Your task to perform on an android device: Clear the shopping cart on ebay.com. Search for "razer thresher" on ebay.com, select the first entry, and add it to the cart. Image 0: 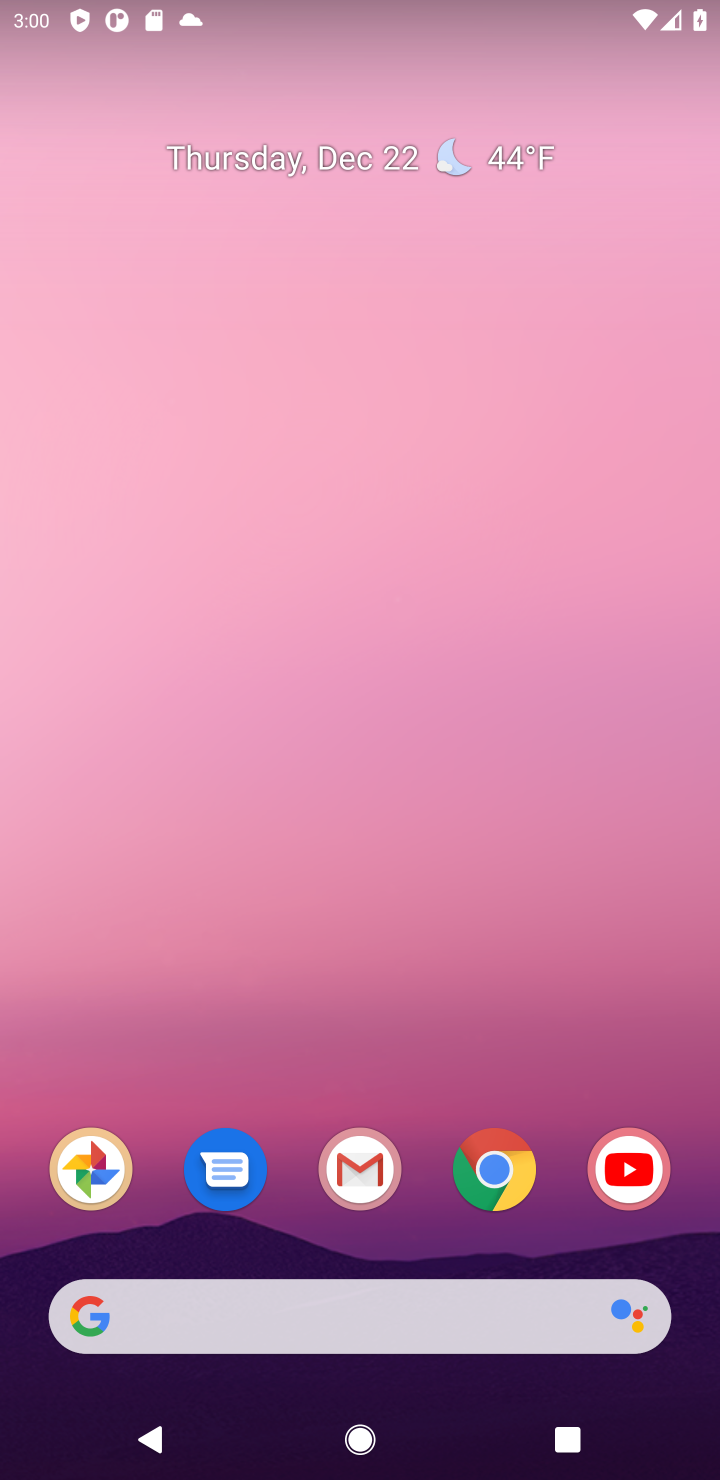
Step 0: click (508, 1170)
Your task to perform on an android device: Clear the shopping cart on ebay.com. Search for "razer thresher" on ebay.com, select the first entry, and add it to the cart. Image 1: 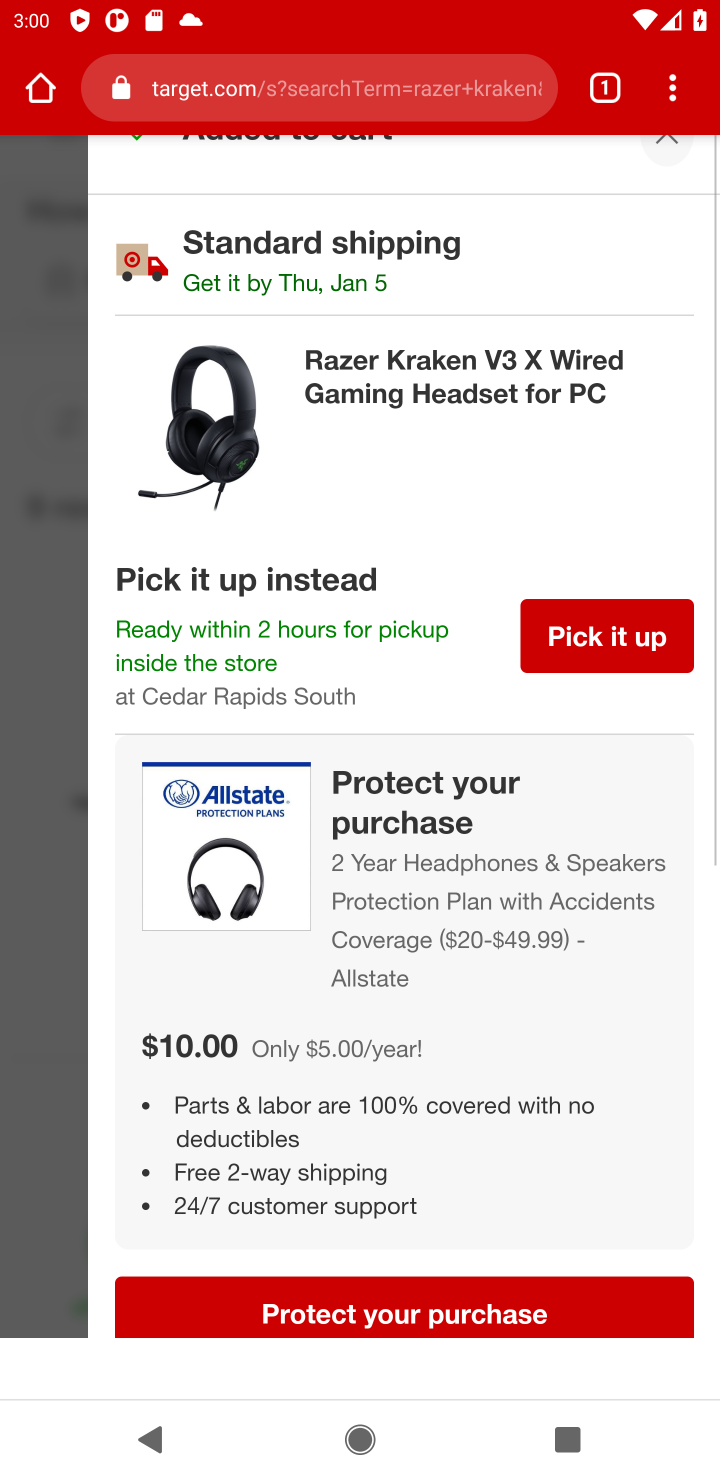
Step 1: click (246, 96)
Your task to perform on an android device: Clear the shopping cart on ebay.com. Search for "razer thresher" on ebay.com, select the first entry, and add it to the cart. Image 2: 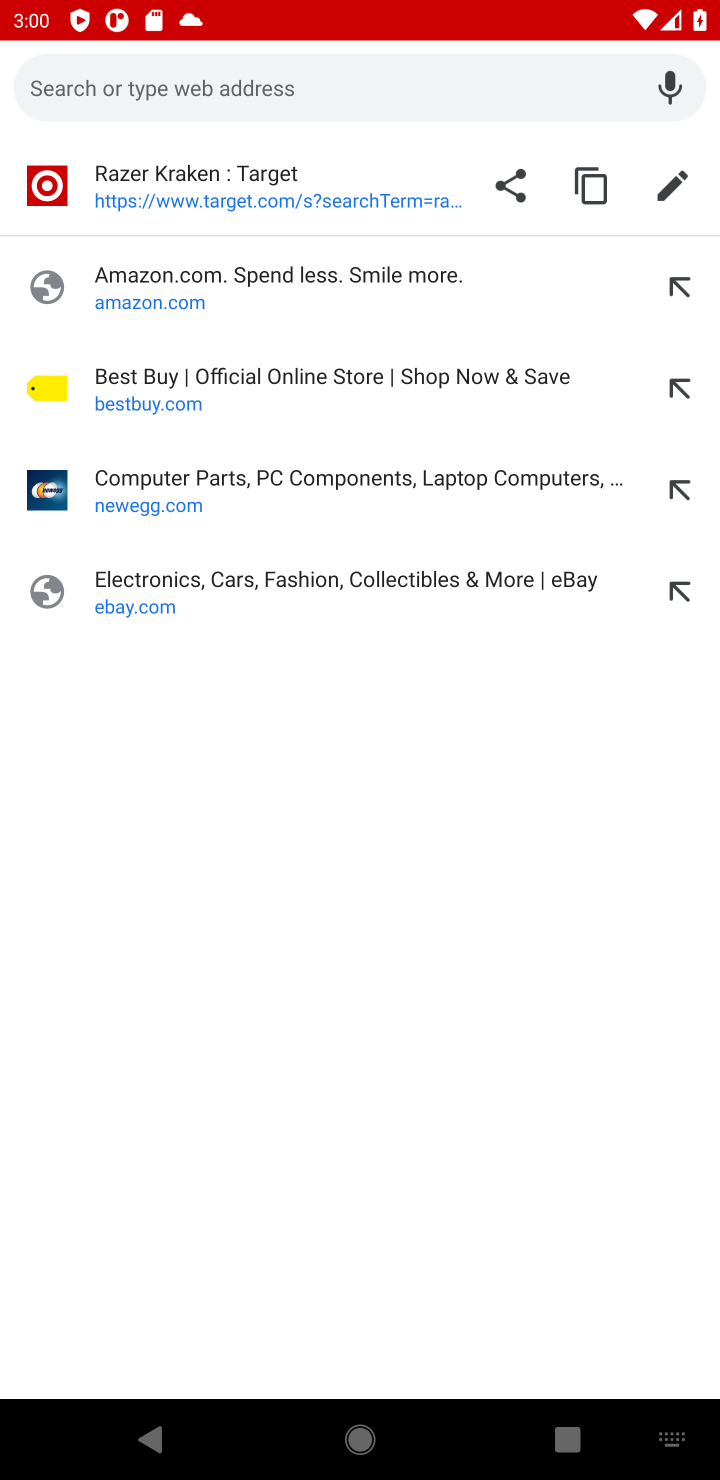
Step 2: click (127, 603)
Your task to perform on an android device: Clear the shopping cart on ebay.com. Search for "razer thresher" on ebay.com, select the first entry, and add it to the cart. Image 3: 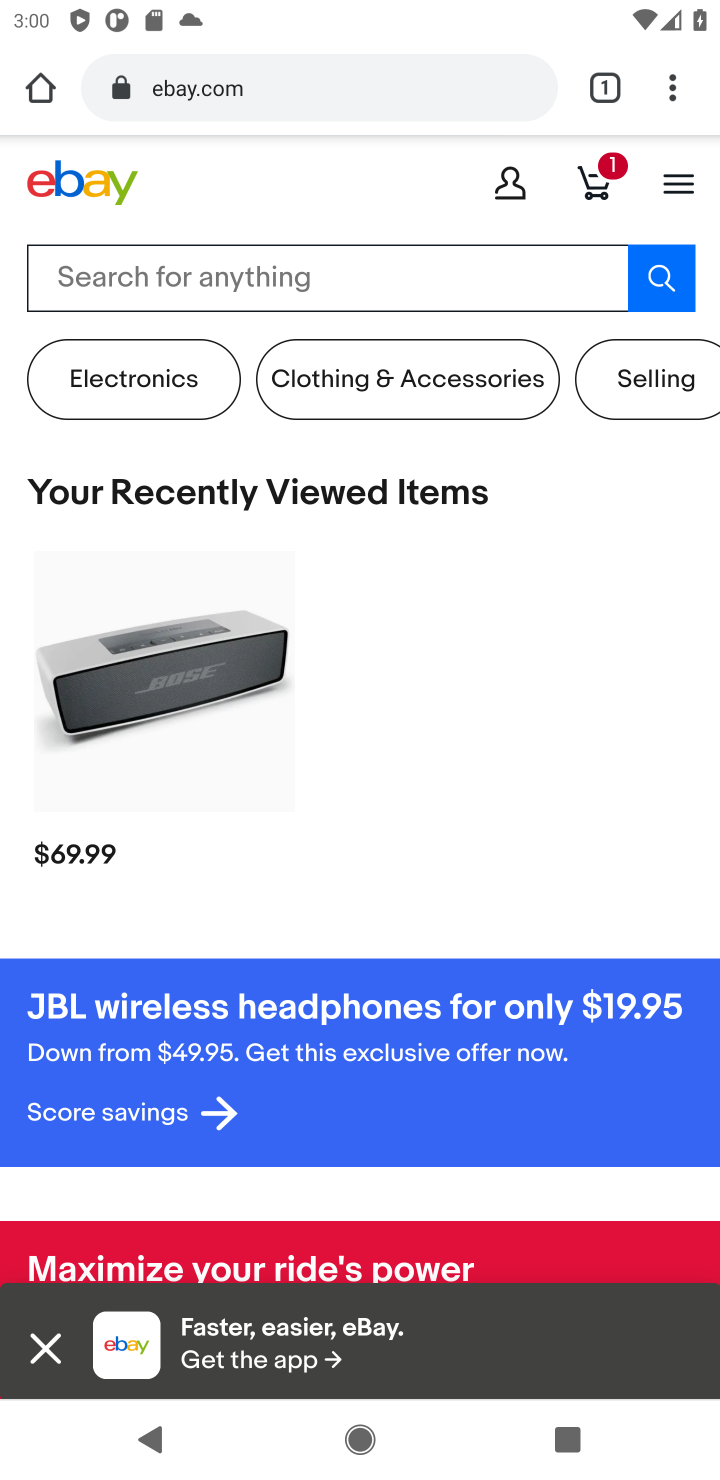
Step 3: click (605, 191)
Your task to perform on an android device: Clear the shopping cart on ebay.com. Search for "razer thresher" on ebay.com, select the first entry, and add it to the cart. Image 4: 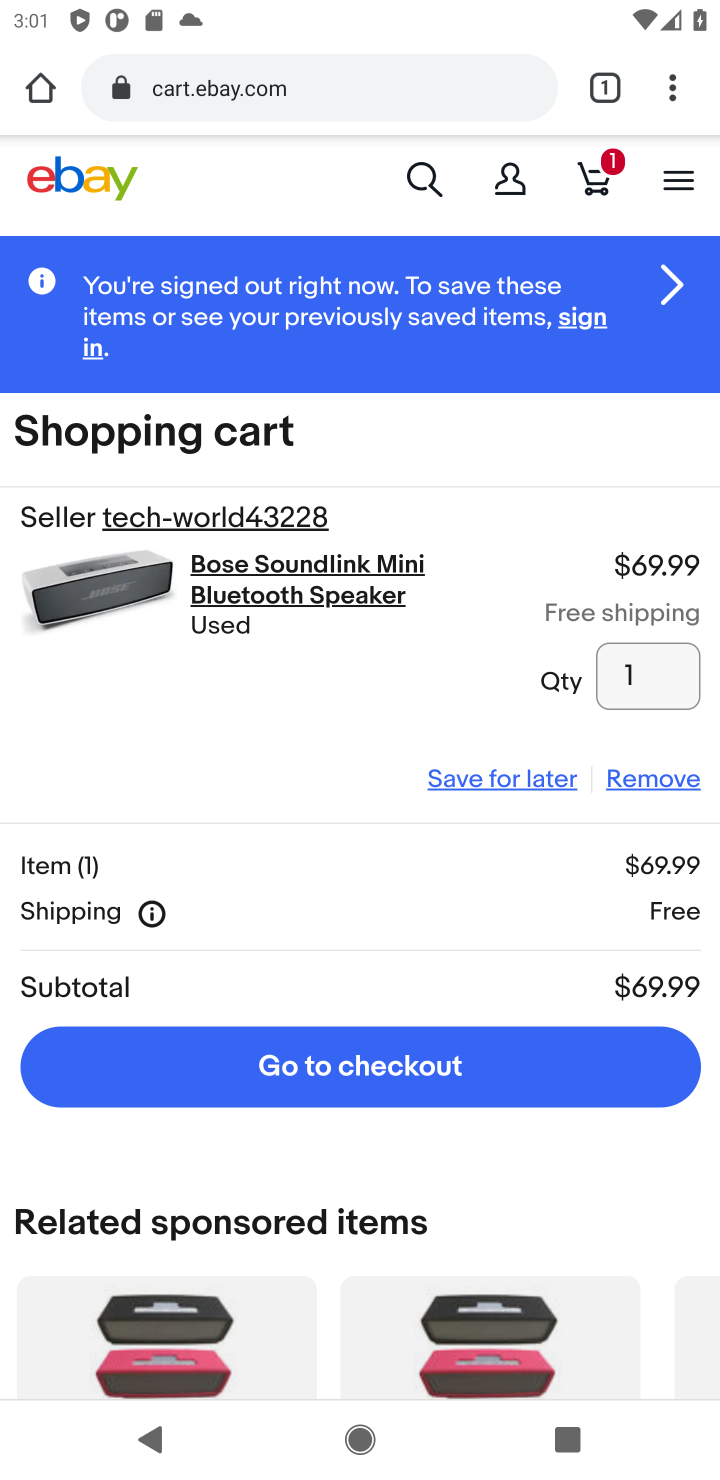
Step 4: click (632, 783)
Your task to perform on an android device: Clear the shopping cart on ebay.com. Search for "razer thresher" on ebay.com, select the first entry, and add it to the cart. Image 5: 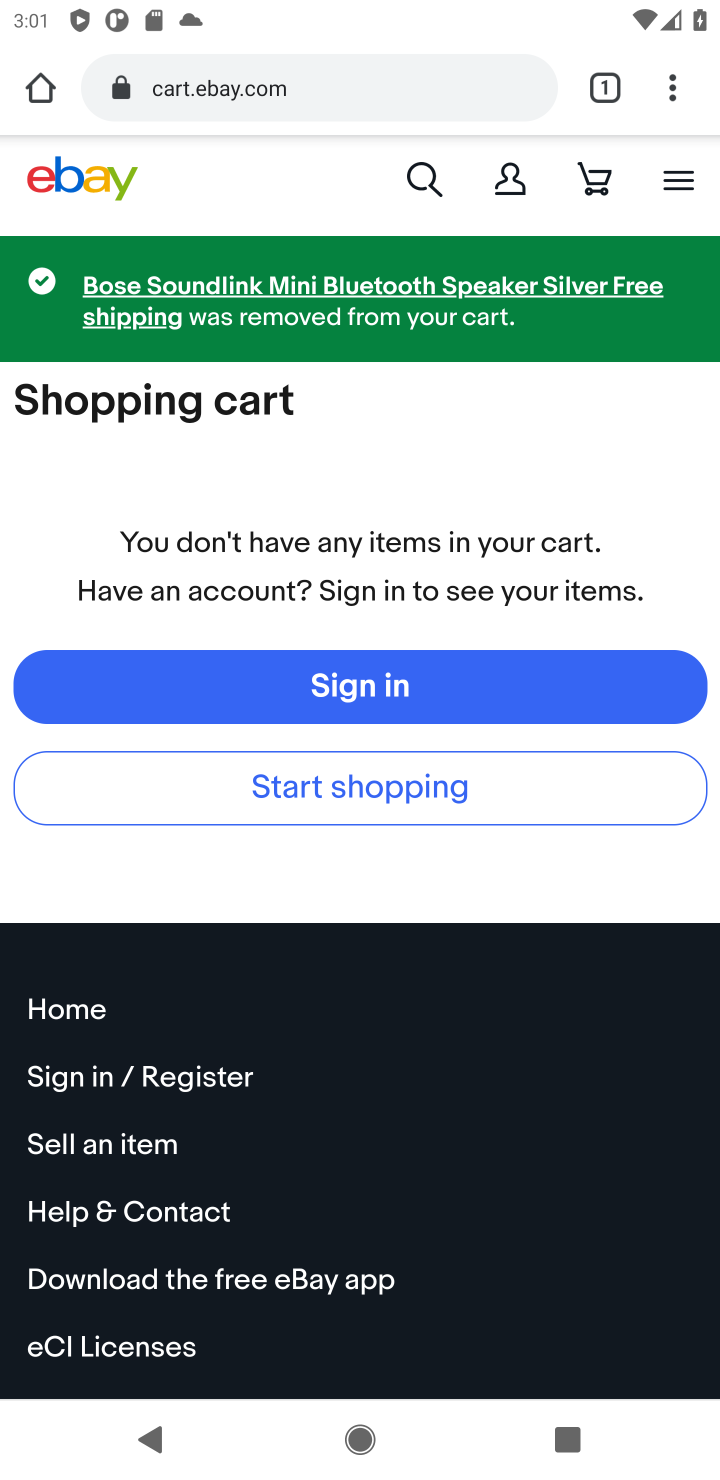
Step 5: click (421, 179)
Your task to perform on an android device: Clear the shopping cart on ebay.com. Search for "razer thresher" on ebay.com, select the first entry, and add it to the cart. Image 6: 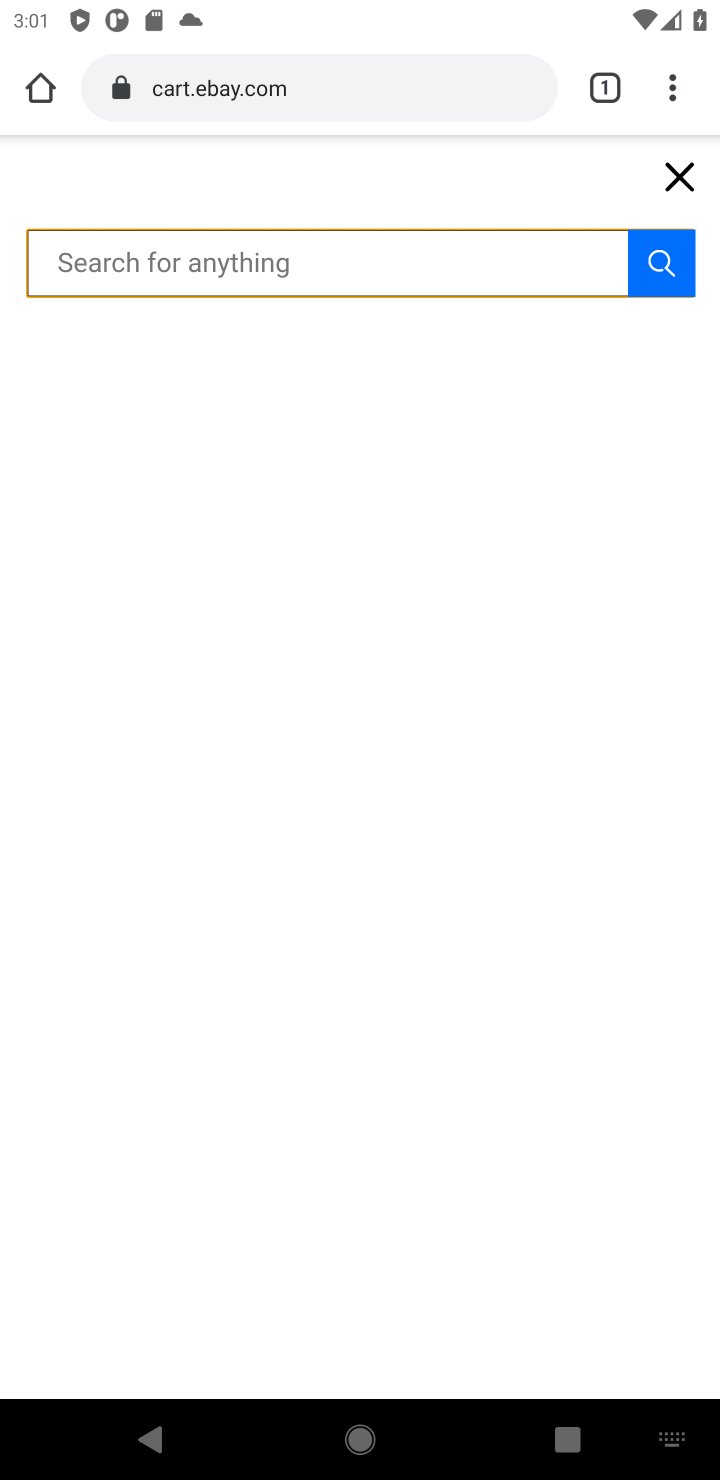
Step 6: type "razer thresher"
Your task to perform on an android device: Clear the shopping cart on ebay.com. Search for "razer thresher" on ebay.com, select the first entry, and add it to the cart. Image 7: 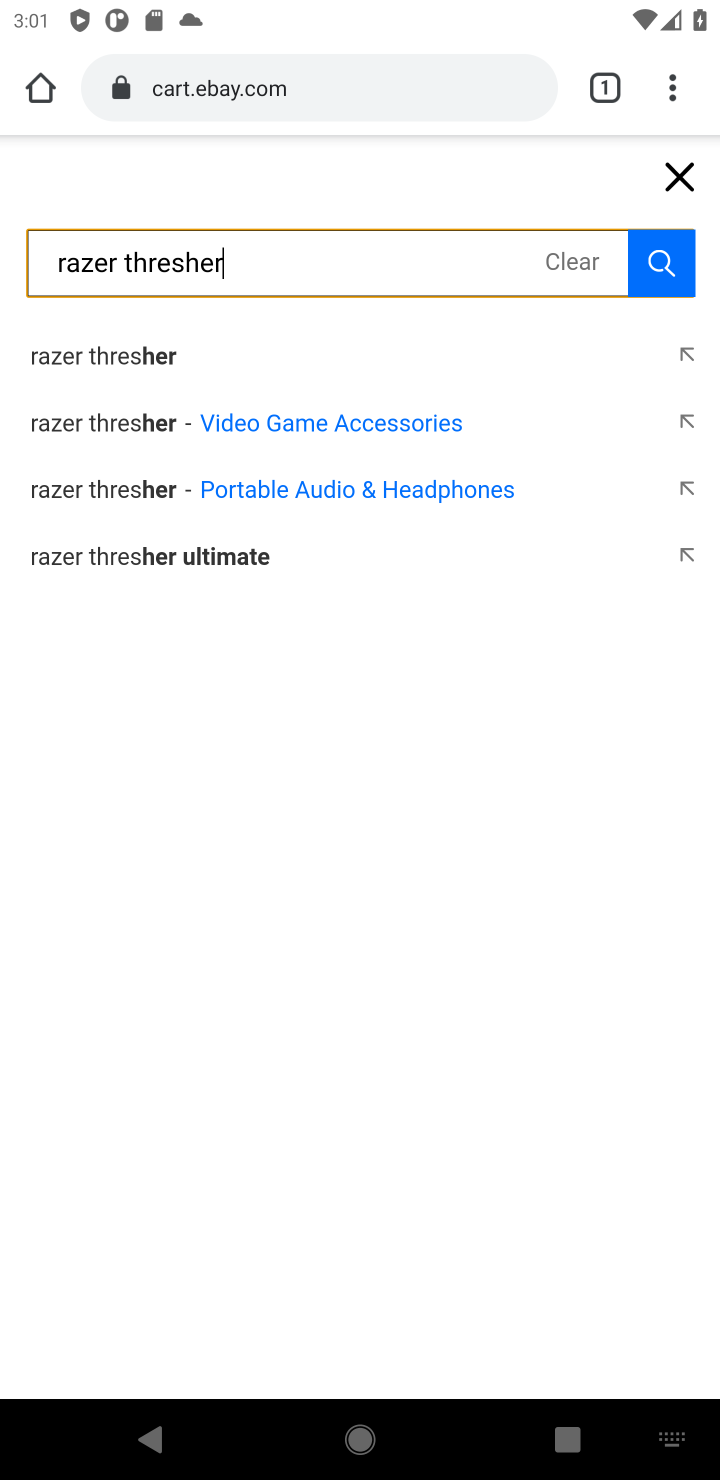
Step 7: click (120, 359)
Your task to perform on an android device: Clear the shopping cart on ebay.com. Search for "razer thresher" on ebay.com, select the first entry, and add it to the cart. Image 8: 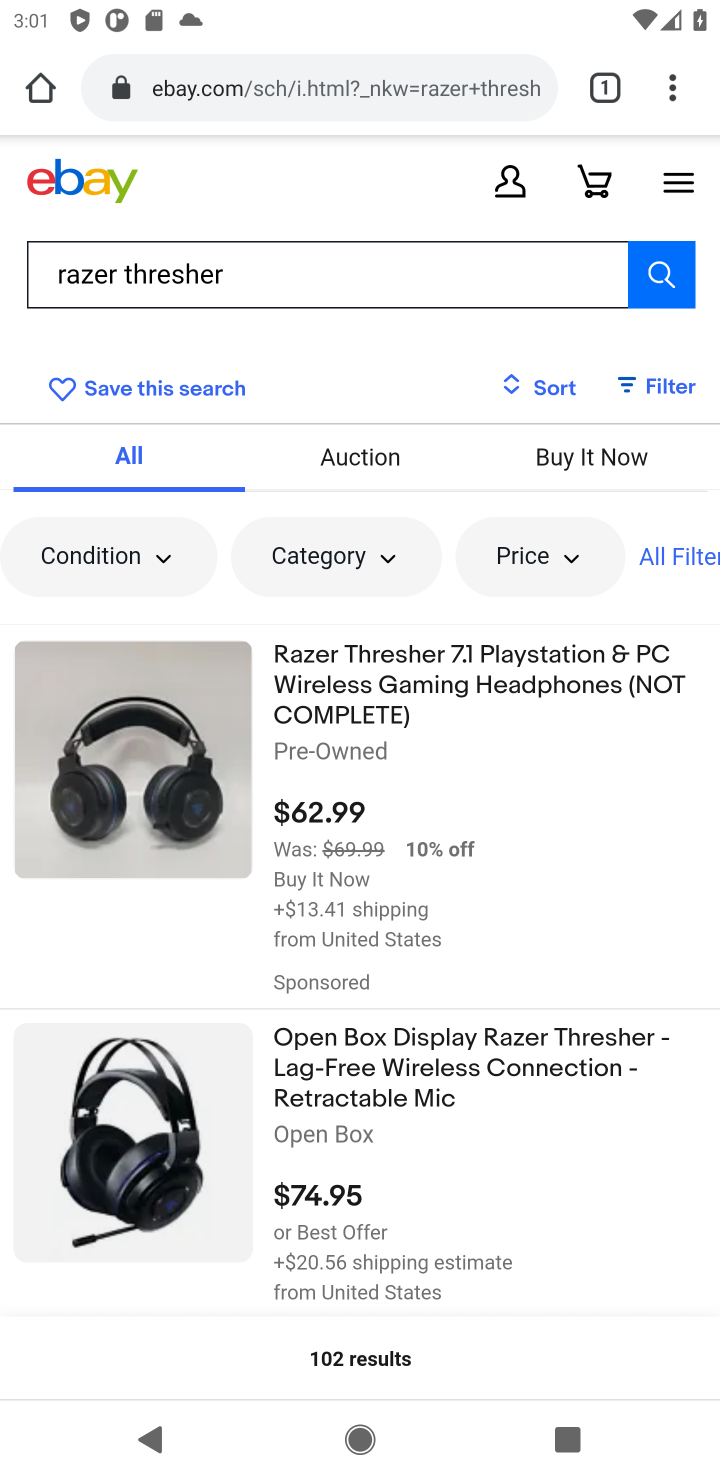
Step 8: click (359, 694)
Your task to perform on an android device: Clear the shopping cart on ebay.com. Search for "razer thresher" on ebay.com, select the first entry, and add it to the cart. Image 9: 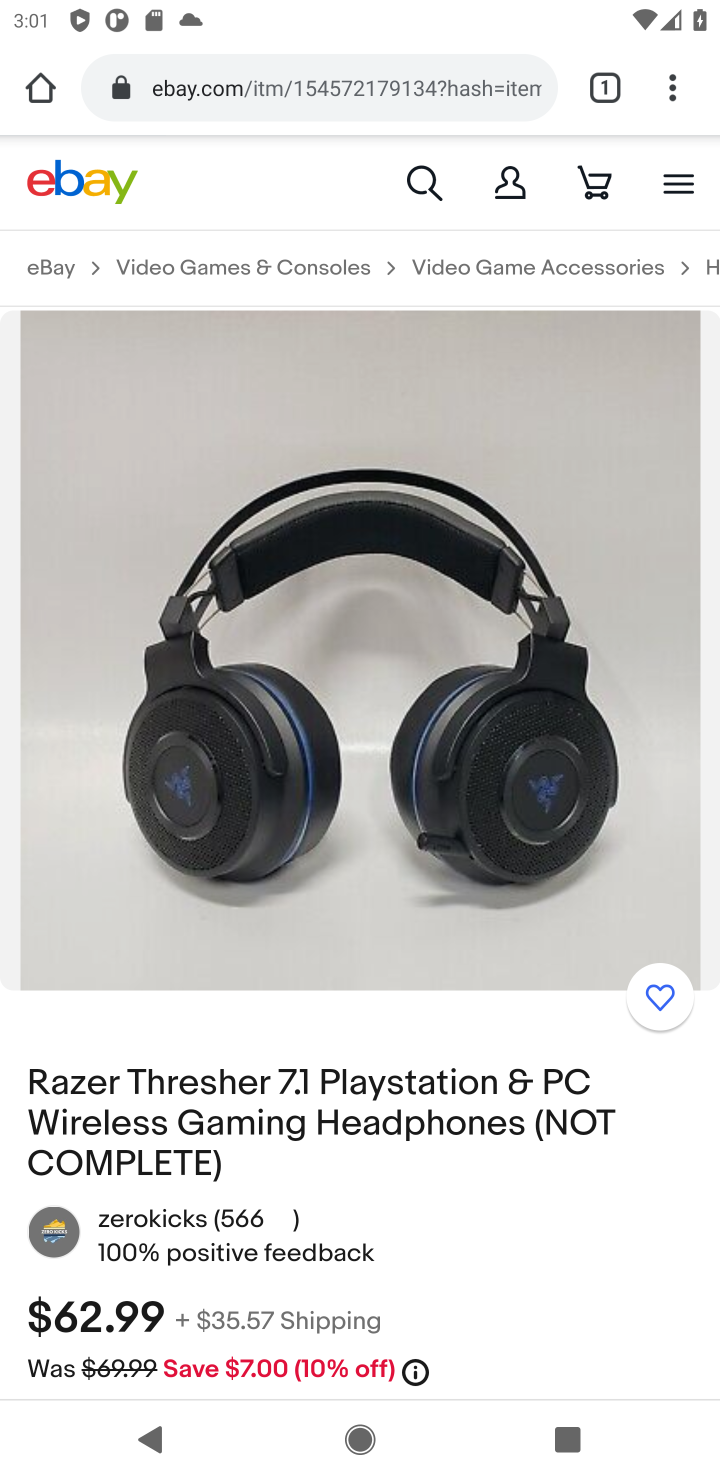
Step 9: drag from (309, 1017) to (341, 552)
Your task to perform on an android device: Clear the shopping cart on ebay.com. Search for "razer thresher" on ebay.com, select the first entry, and add it to the cart. Image 10: 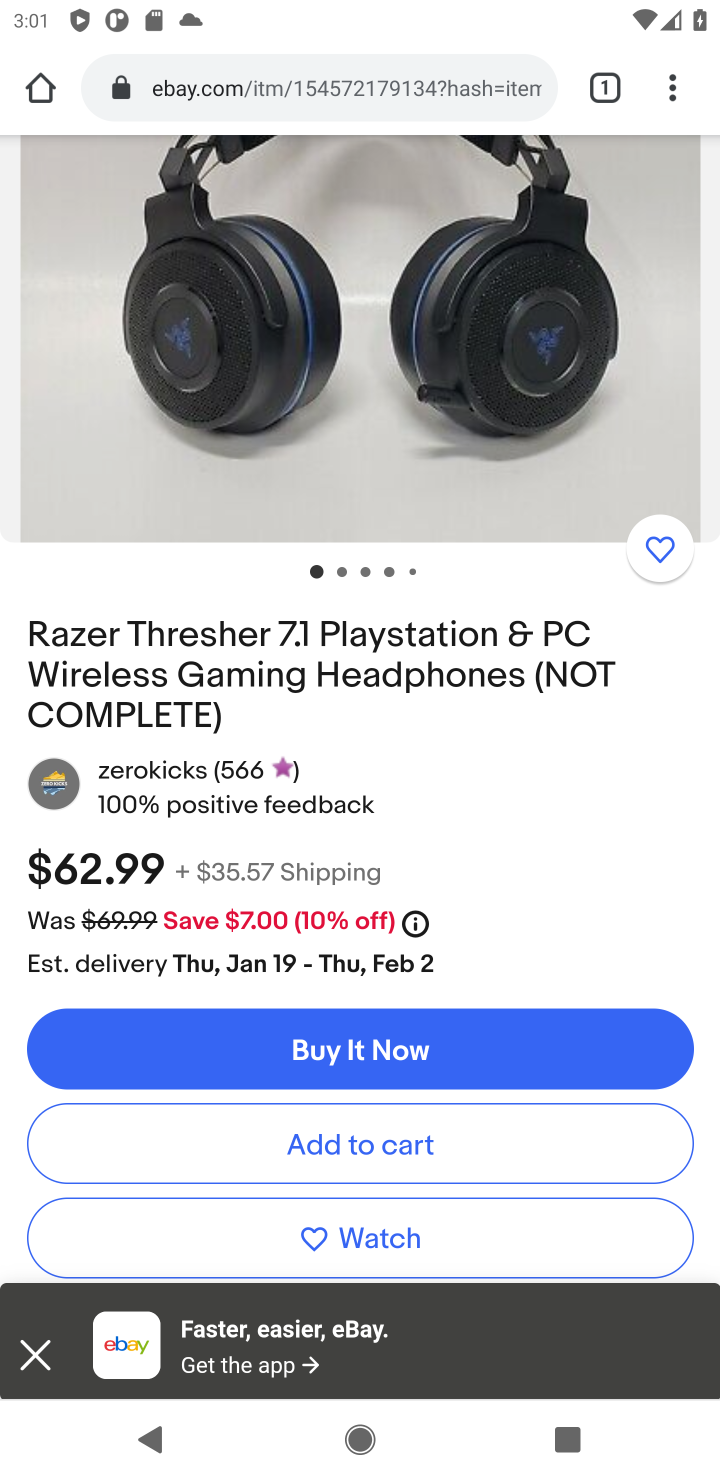
Step 10: click (328, 1134)
Your task to perform on an android device: Clear the shopping cart on ebay.com. Search for "razer thresher" on ebay.com, select the first entry, and add it to the cart. Image 11: 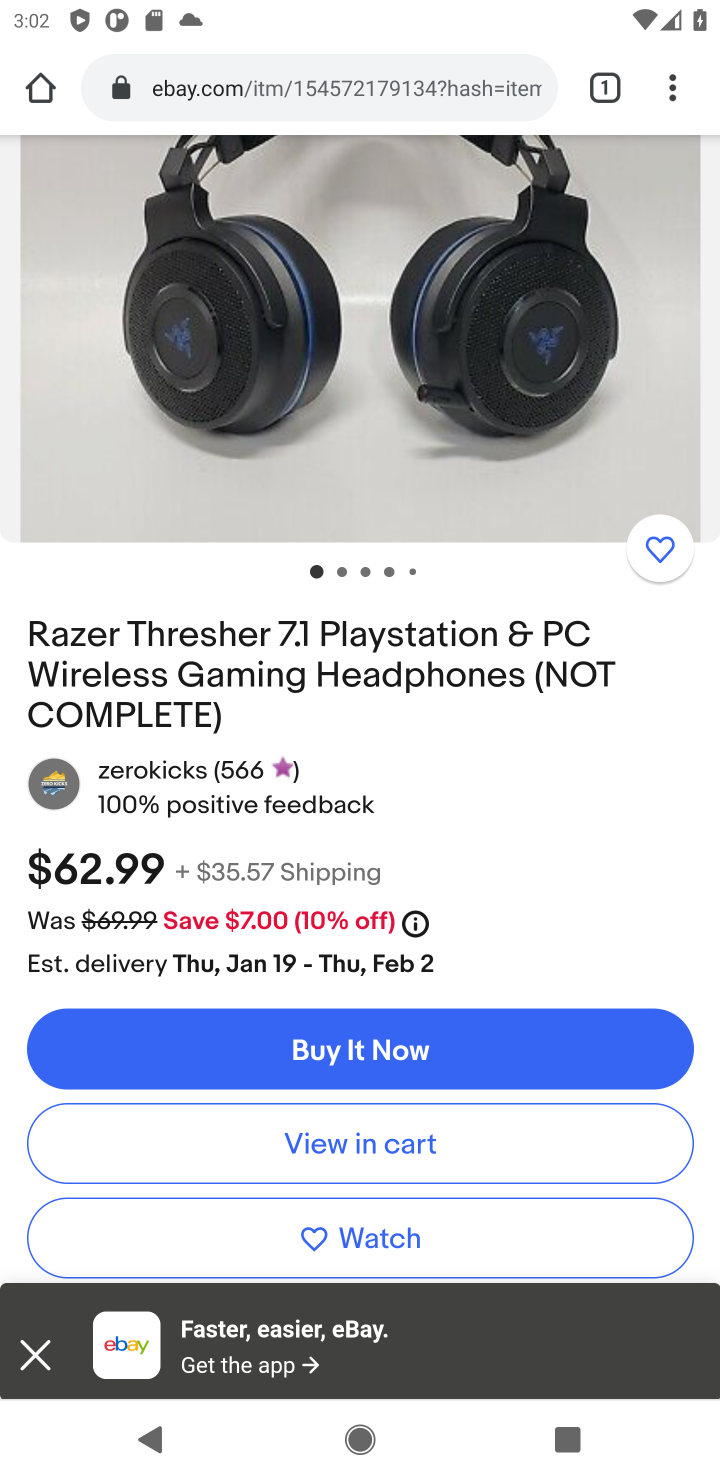
Step 11: task complete